Your task to perform on an android device: Open settings Image 0: 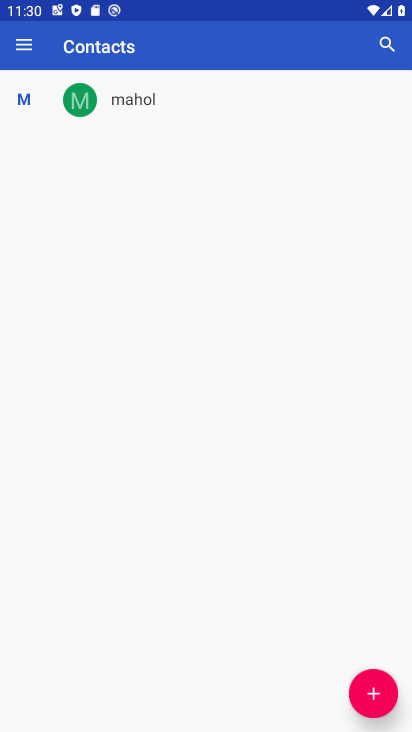
Step 0: press home button
Your task to perform on an android device: Open settings Image 1: 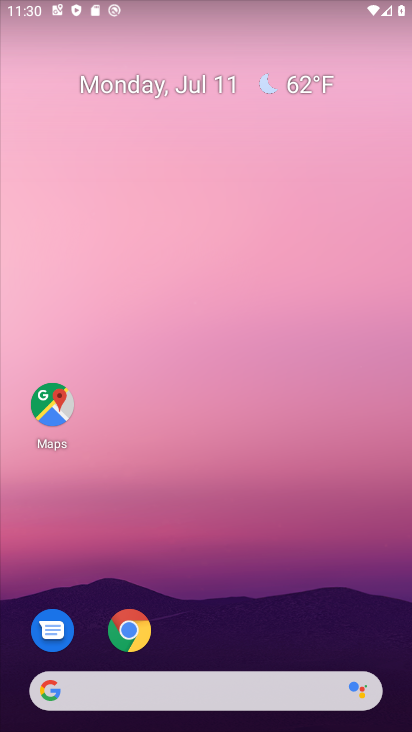
Step 1: drag from (155, 693) to (259, 78)
Your task to perform on an android device: Open settings Image 2: 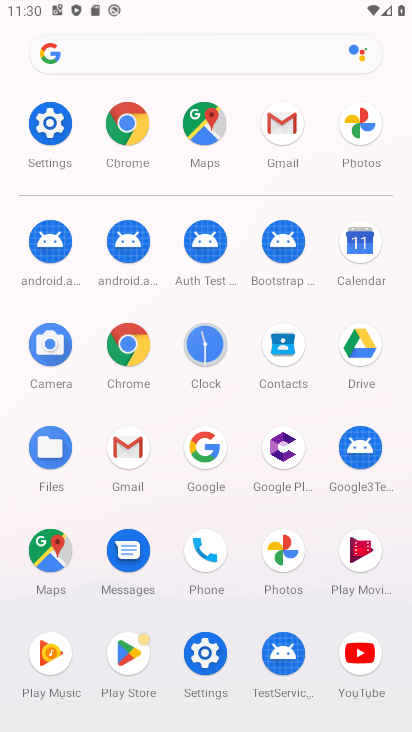
Step 2: click (43, 117)
Your task to perform on an android device: Open settings Image 3: 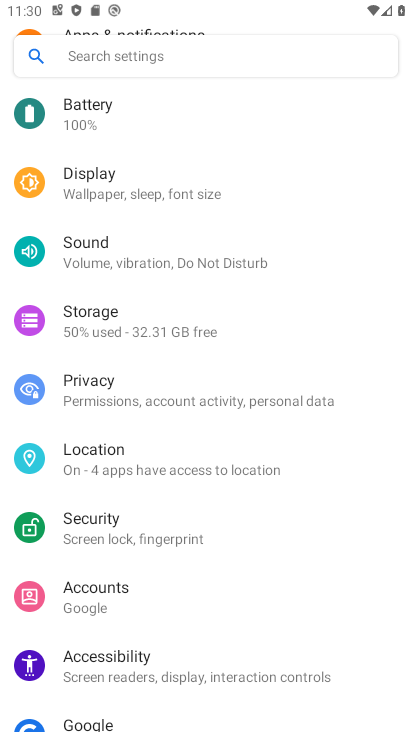
Step 3: task complete